Your task to perform on an android device: Go to sound settings Image 0: 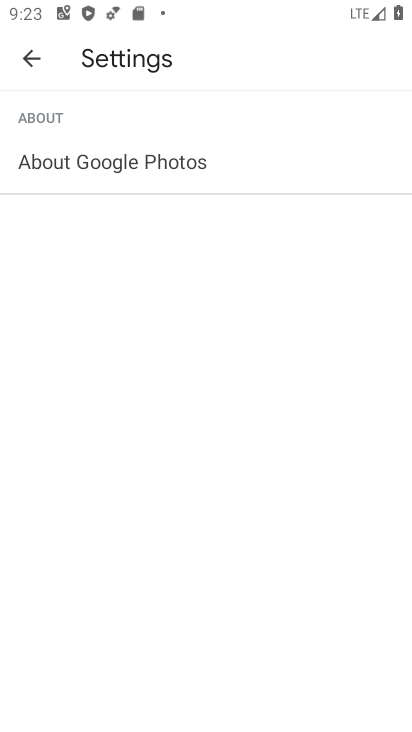
Step 0: press home button
Your task to perform on an android device: Go to sound settings Image 1: 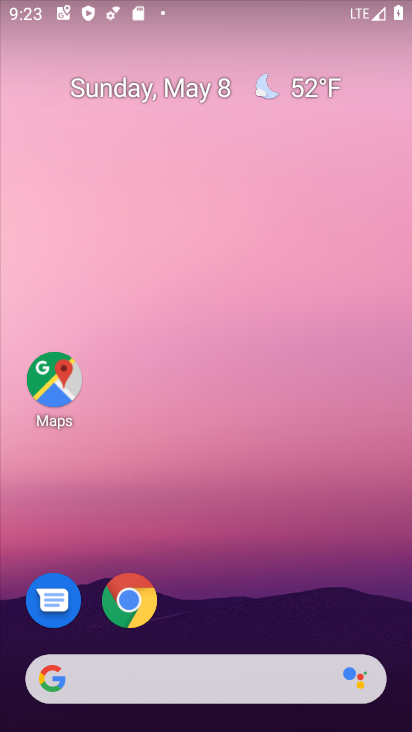
Step 1: drag from (320, 623) to (314, 13)
Your task to perform on an android device: Go to sound settings Image 2: 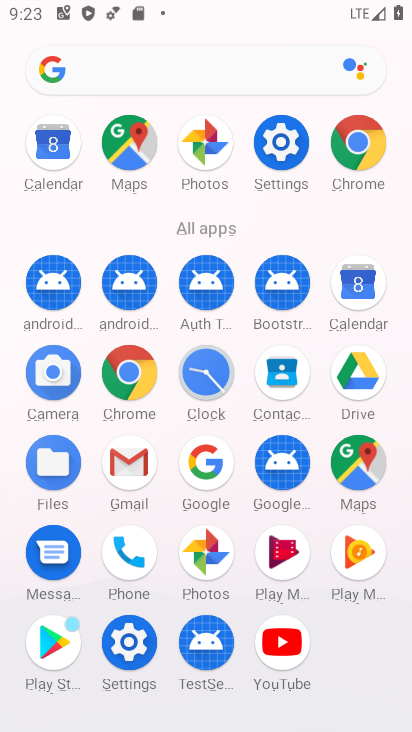
Step 2: click (277, 135)
Your task to perform on an android device: Go to sound settings Image 3: 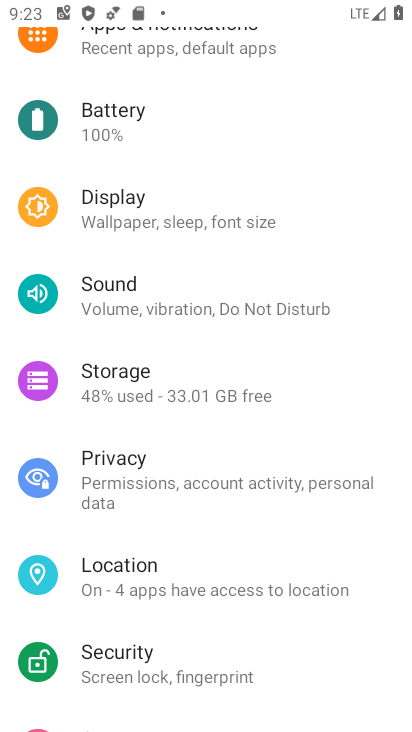
Step 3: click (121, 308)
Your task to perform on an android device: Go to sound settings Image 4: 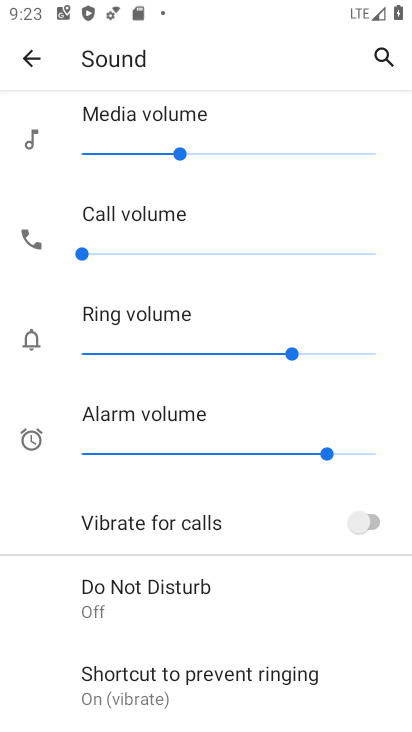
Step 4: task complete